Your task to perform on an android device: Add rayovac triple a to the cart on bestbuy, then select checkout. Image 0: 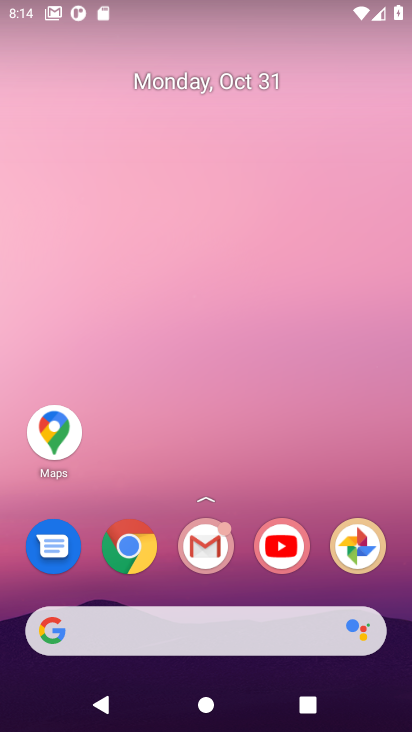
Step 0: drag from (184, 500) to (205, 123)
Your task to perform on an android device: Add rayovac triple a to the cart on bestbuy, then select checkout. Image 1: 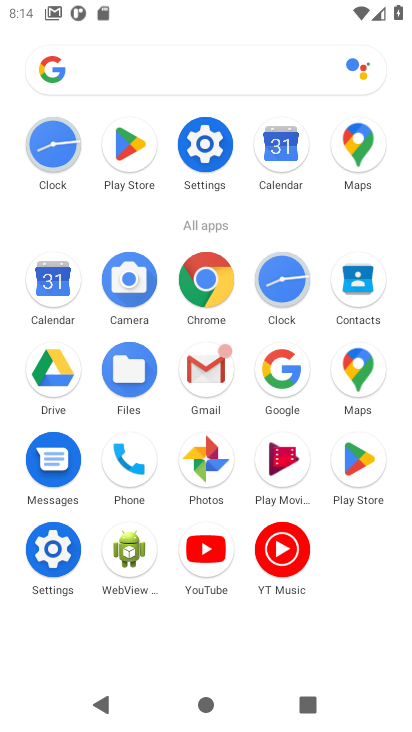
Step 1: click (213, 279)
Your task to perform on an android device: Add rayovac triple a to the cart on bestbuy, then select checkout. Image 2: 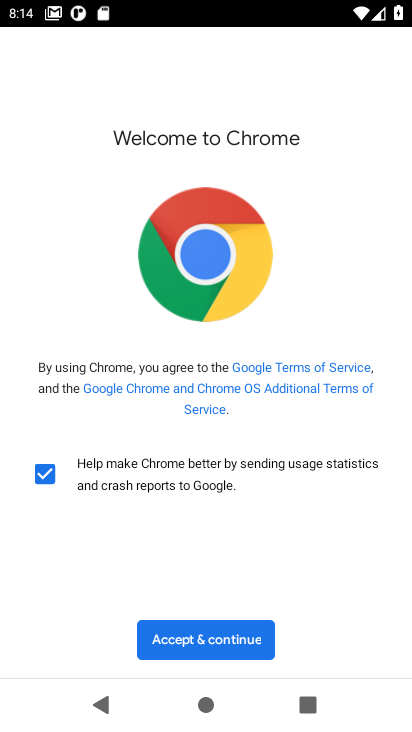
Step 2: click (231, 632)
Your task to perform on an android device: Add rayovac triple a to the cart on bestbuy, then select checkout. Image 3: 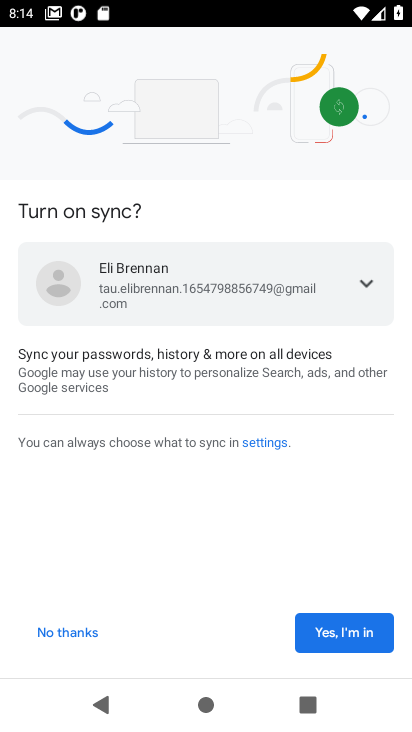
Step 3: click (343, 631)
Your task to perform on an android device: Add rayovac triple a to the cart on bestbuy, then select checkout. Image 4: 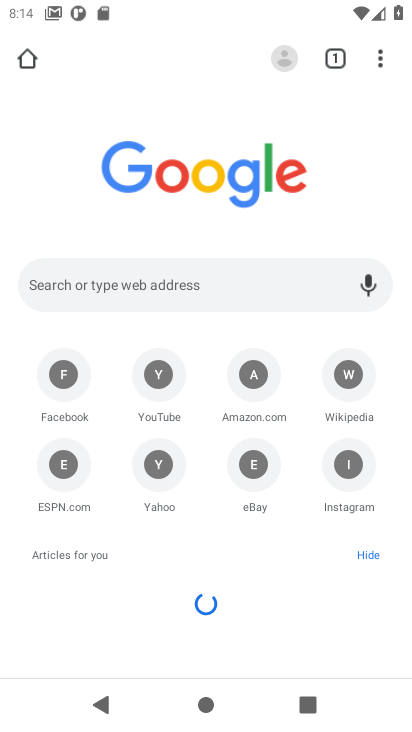
Step 4: click (229, 292)
Your task to perform on an android device: Add rayovac triple a to the cart on bestbuy, then select checkout. Image 5: 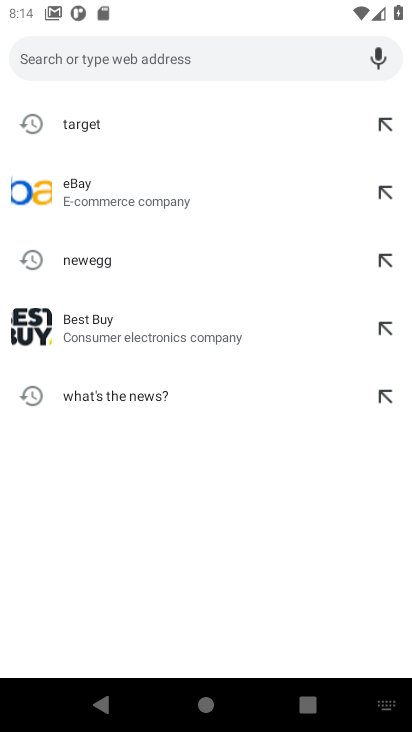
Step 5: click (151, 335)
Your task to perform on an android device: Add rayovac triple a to the cart on bestbuy, then select checkout. Image 6: 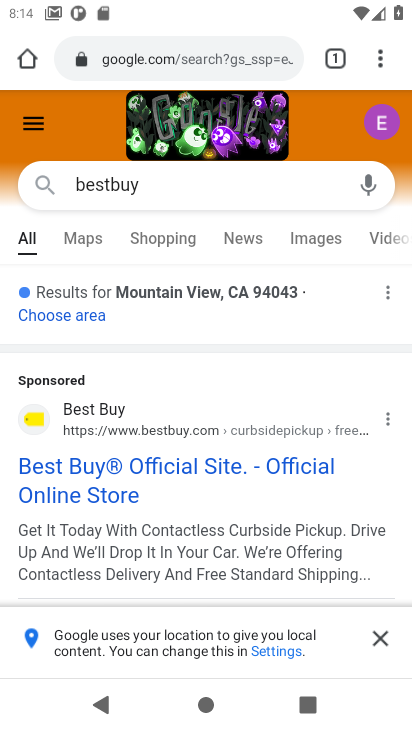
Step 6: click (114, 416)
Your task to perform on an android device: Add rayovac triple a to the cart on bestbuy, then select checkout. Image 7: 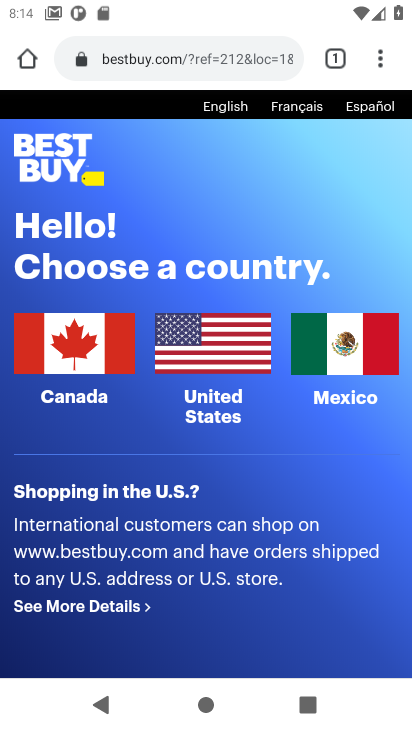
Step 7: click (322, 349)
Your task to perform on an android device: Add rayovac triple a to the cart on bestbuy, then select checkout. Image 8: 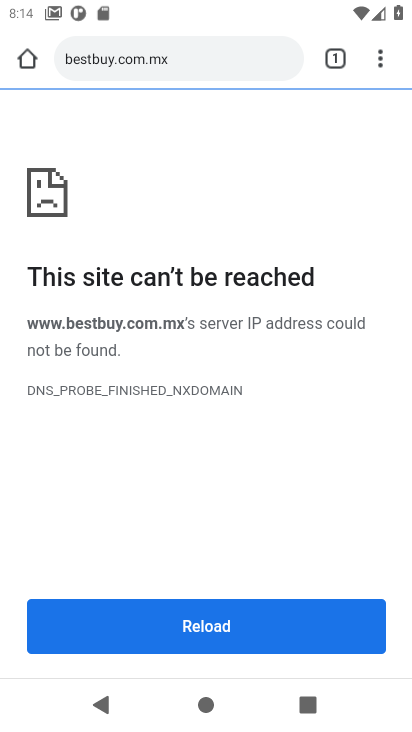
Step 8: press back button
Your task to perform on an android device: Add rayovac triple a to the cart on bestbuy, then select checkout. Image 9: 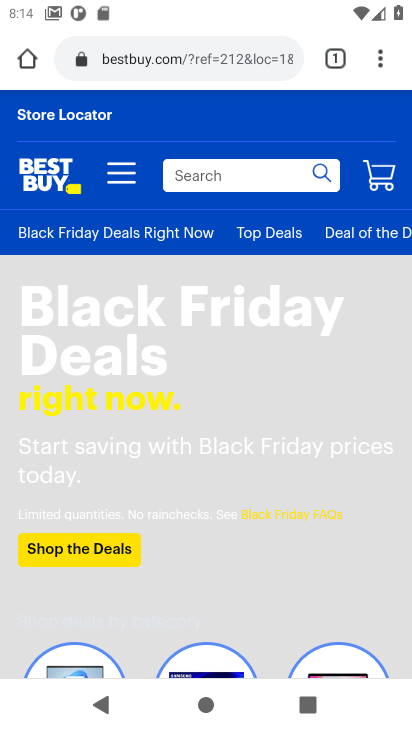
Step 9: drag from (200, 587) to (190, 380)
Your task to perform on an android device: Add rayovac triple a to the cart on bestbuy, then select checkout. Image 10: 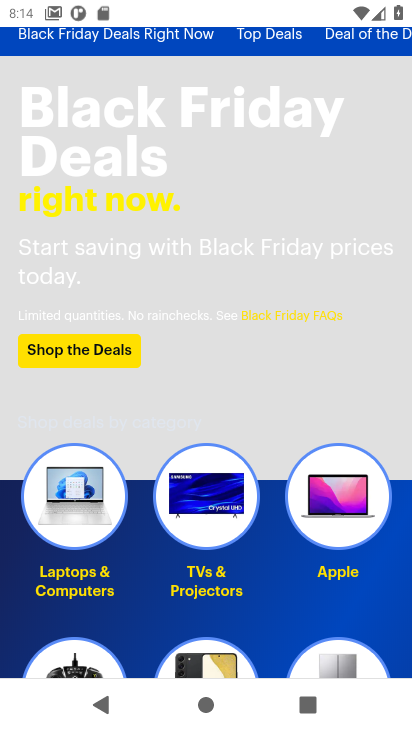
Step 10: drag from (240, 146) to (247, 444)
Your task to perform on an android device: Add rayovac triple a to the cart on bestbuy, then select checkout. Image 11: 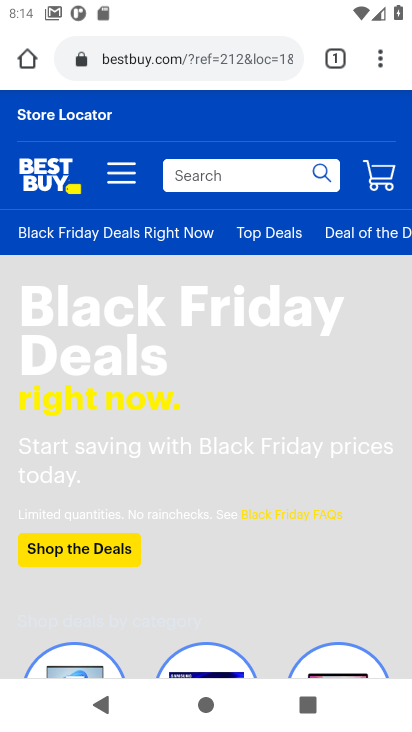
Step 11: click (228, 175)
Your task to perform on an android device: Add rayovac triple a to the cart on bestbuy, then select checkout. Image 12: 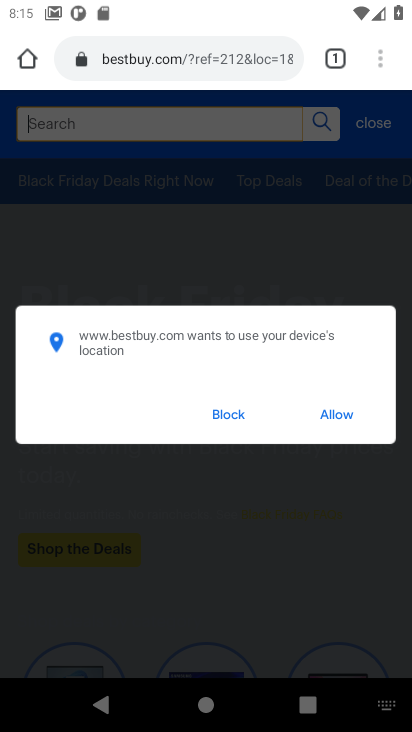
Step 12: click (342, 412)
Your task to perform on an android device: Add rayovac triple a to the cart on bestbuy, then select checkout. Image 13: 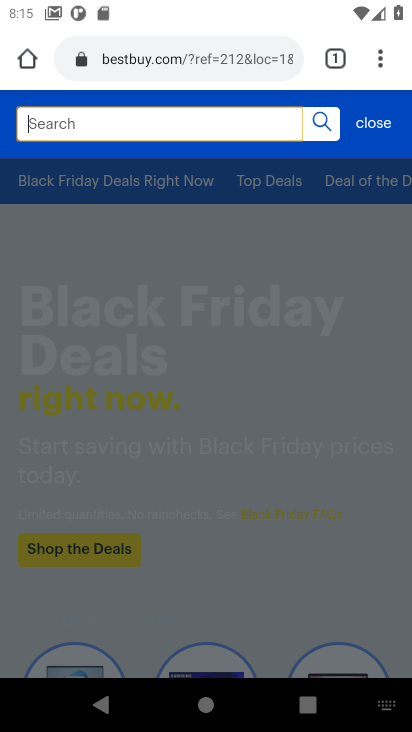
Step 13: type "rayovac triple"
Your task to perform on an android device: Add rayovac triple a to the cart on bestbuy, then select checkout. Image 14: 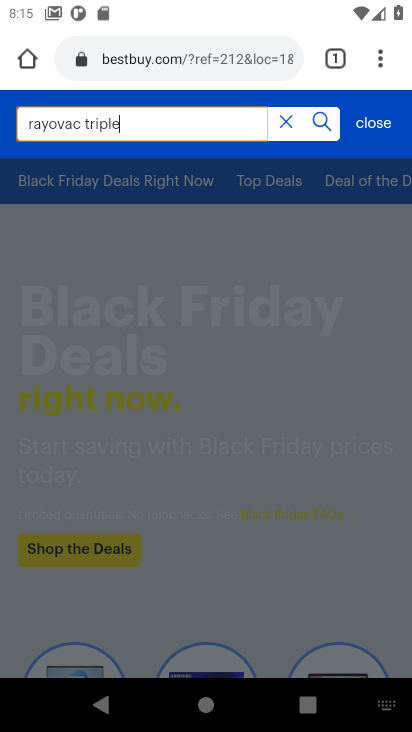
Step 14: press enter
Your task to perform on an android device: Add rayovac triple a to the cart on bestbuy, then select checkout. Image 15: 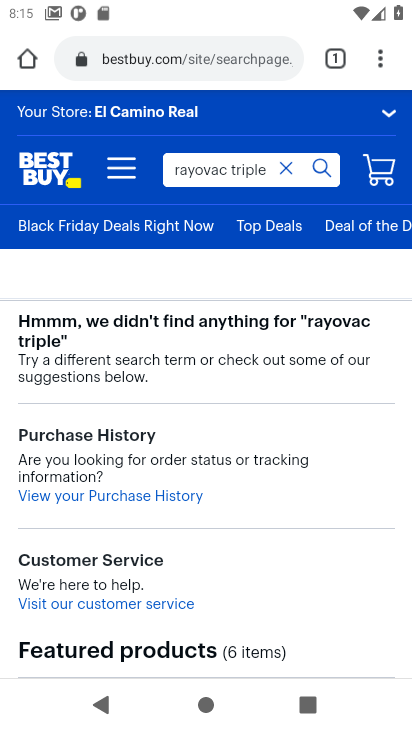
Step 15: drag from (239, 496) to (230, 280)
Your task to perform on an android device: Add rayovac triple a to the cart on bestbuy, then select checkout. Image 16: 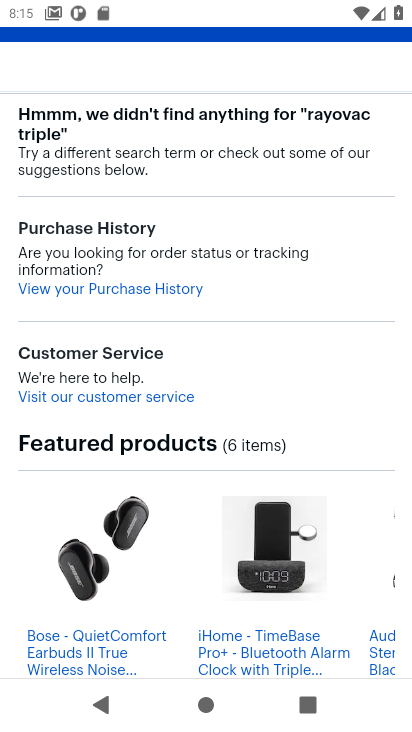
Step 16: drag from (171, 530) to (183, 330)
Your task to perform on an android device: Add rayovac triple a to the cart on bestbuy, then select checkout. Image 17: 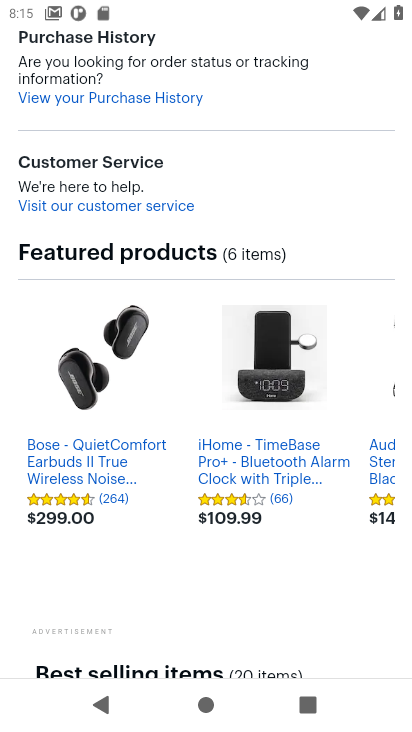
Step 17: click (100, 440)
Your task to perform on an android device: Add rayovac triple a to the cart on bestbuy, then select checkout. Image 18: 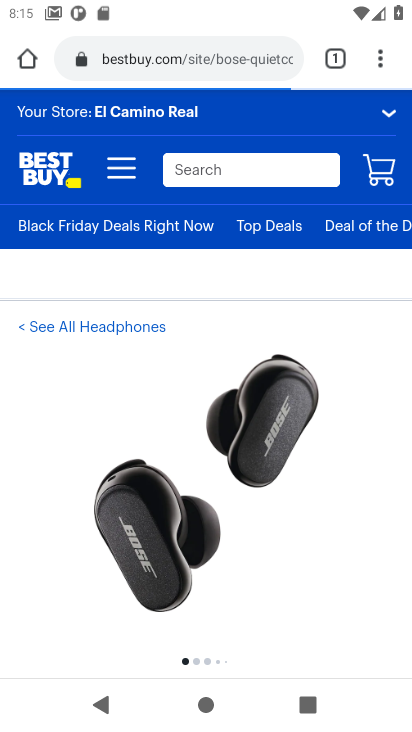
Step 18: drag from (142, 515) to (141, 301)
Your task to perform on an android device: Add rayovac triple a to the cart on bestbuy, then select checkout. Image 19: 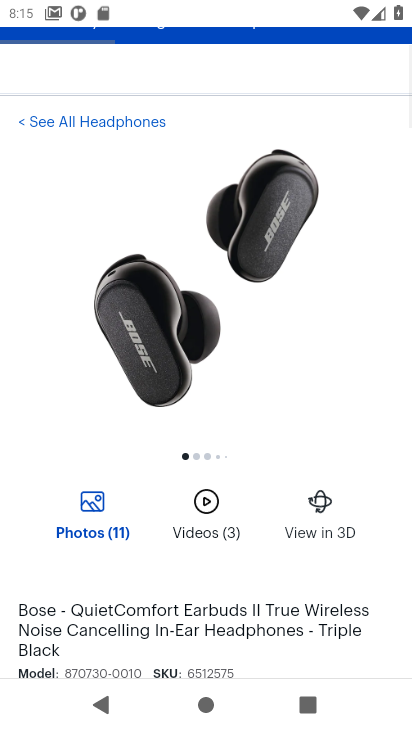
Step 19: drag from (174, 571) to (148, 334)
Your task to perform on an android device: Add rayovac triple a to the cart on bestbuy, then select checkout. Image 20: 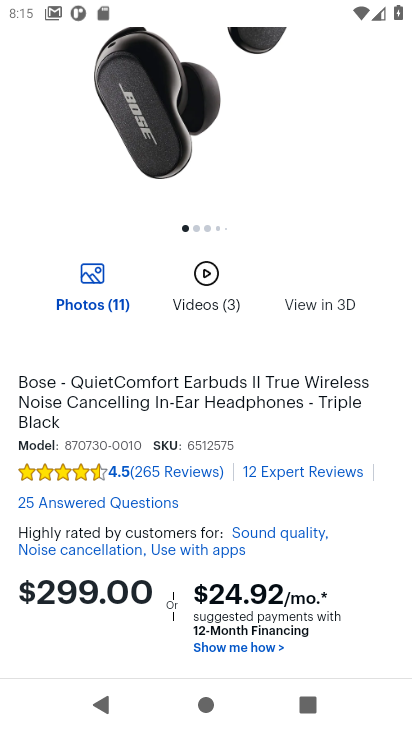
Step 20: drag from (158, 485) to (146, 306)
Your task to perform on an android device: Add rayovac triple a to the cart on bestbuy, then select checkout. Image 21: 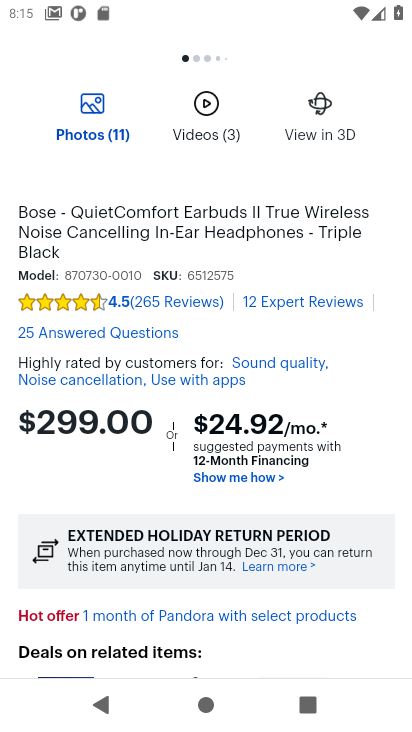
Step 21: drag from (213, 450) to (183, 247)
Your task to perform on an android device: Add rayovac triple a to the cart on bestbuy, then select checkout. Image 22: 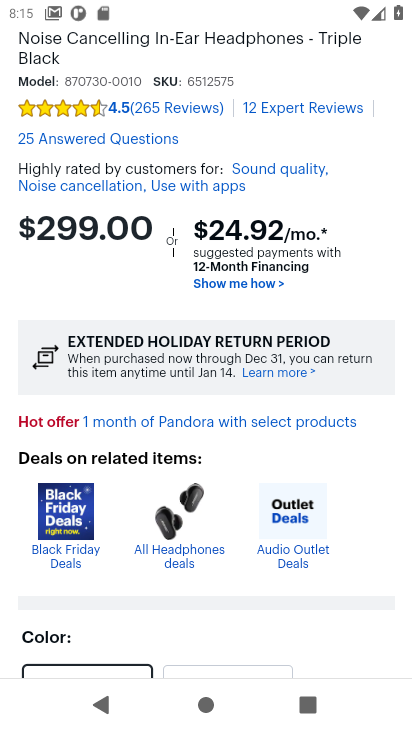
Step 22: drag from (193, 505) to (149, 256)
Your task to perform on an android device: Add rayovac triple a to the cart on bestbuy, then select checkout. Image 23: 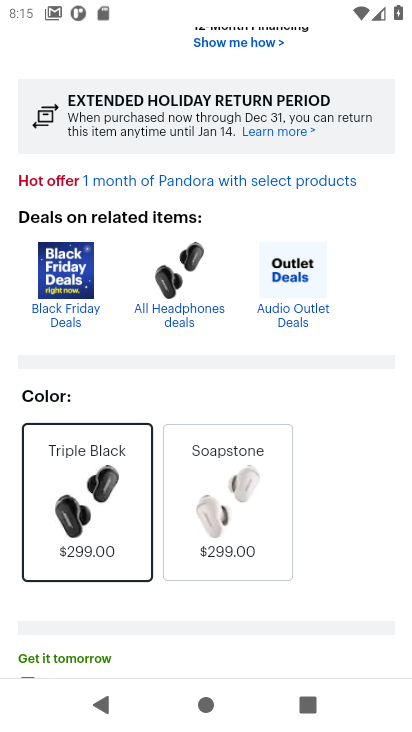
Step 23: drag from (152, 473) to (150, 235)
Your task to perform on an android device: Add rayovac triple a to the cart on bestbuy, then select checkout. Image 24: 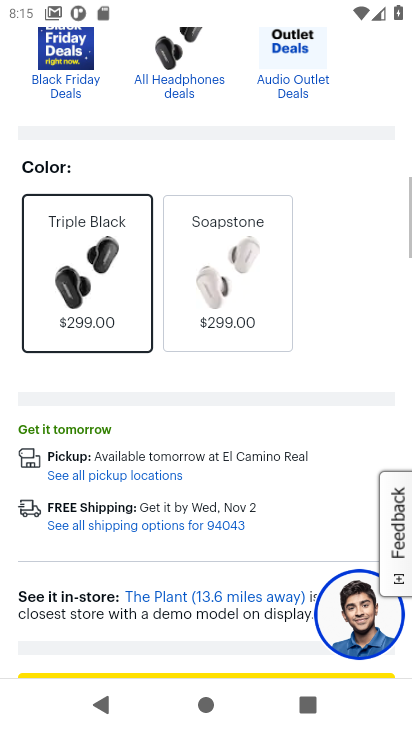
Step 24: drag from (175, 507) to (136, 271)
Your task to perform on an android device: Add rayovac triple a to the cart on bestbuy, then select checkout. Image 25: 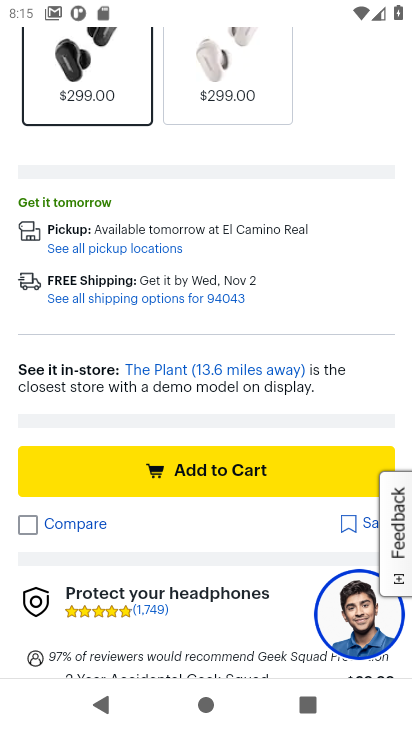
Step 25: click (202, 473)
Your task to perform on an android device: Add rayovac triple a to the cart on bestbuy, then select checkout. Image 26: 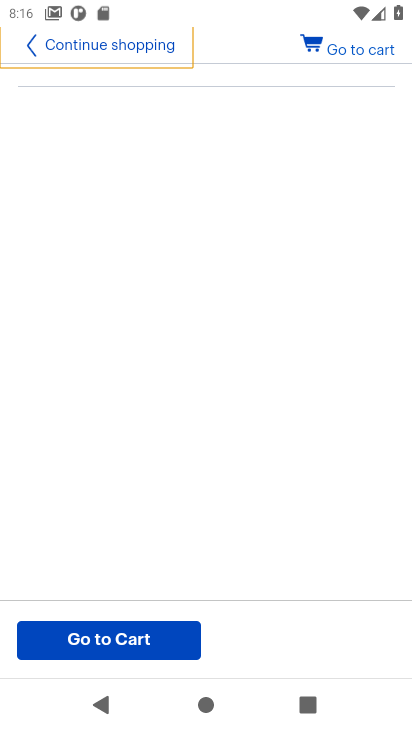
Step 26: click (378, 50)
Your task to perform on an android device: Add rayovac triple a to the cart on bestbuy, then select checkout. Image 27: 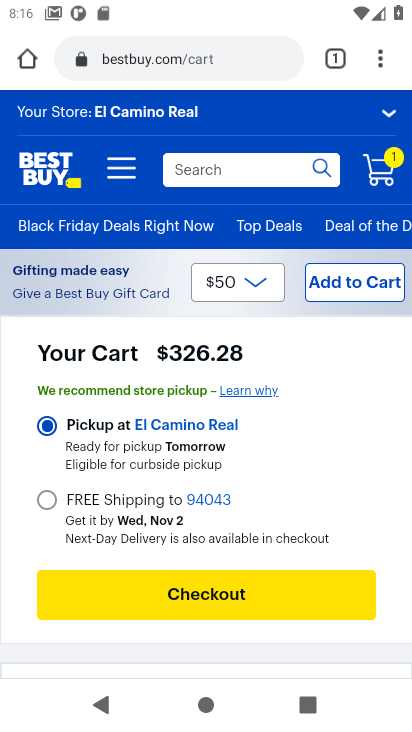
Step 27: click (211, 596)
Your task to perform on an android device: Add rayovac triple a to the cart on bestbuy, then select checkout. Image 28: 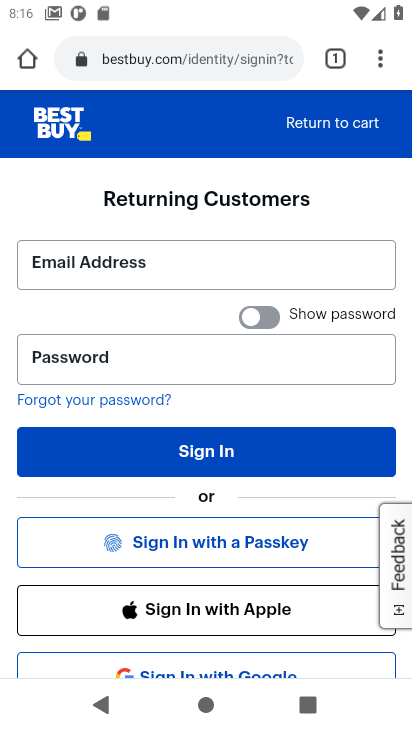
Step 28: task complete